Your task to perform on an android device: toggle notifications settings in the gmail app Image 0: 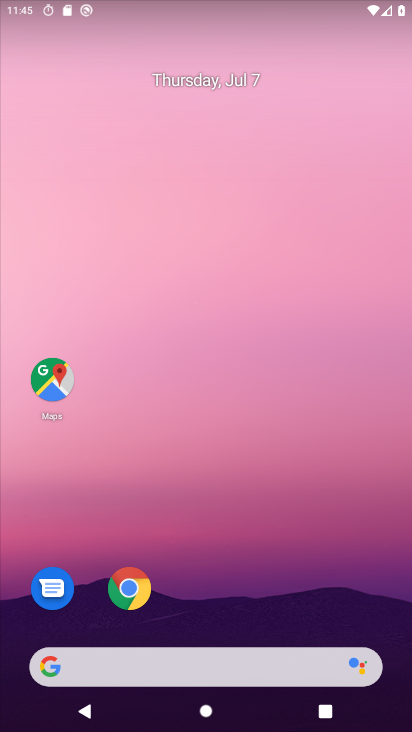
Step 0: drag from (195, 665) to (291, 197)
Your task to perform on an android device: toggle notifications settings in the gmail app Image 1: 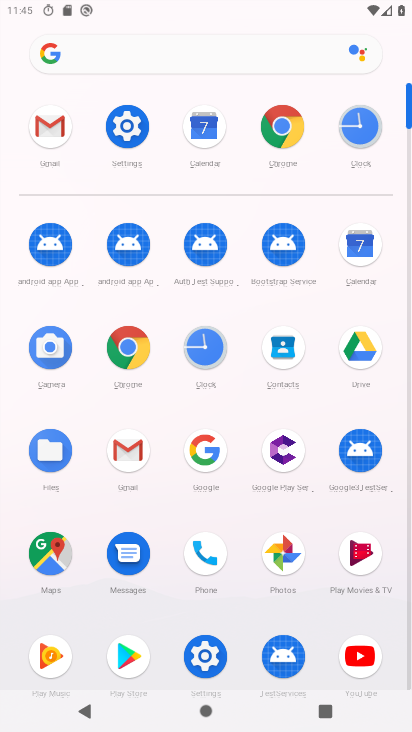
Step 1: click (55, 119)
Your task to perform on an android device: toggle notifications settings in the gmail app Image 2: 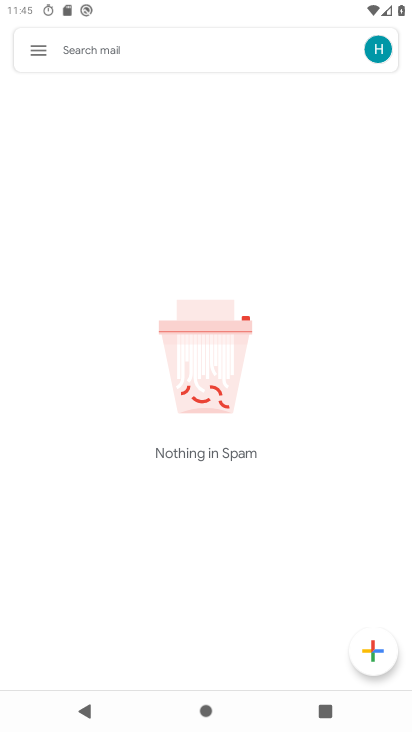
Step 2: click (31, 45)
Your task to perform on an android device: toggle notifications settings in the gmail app Image 3: 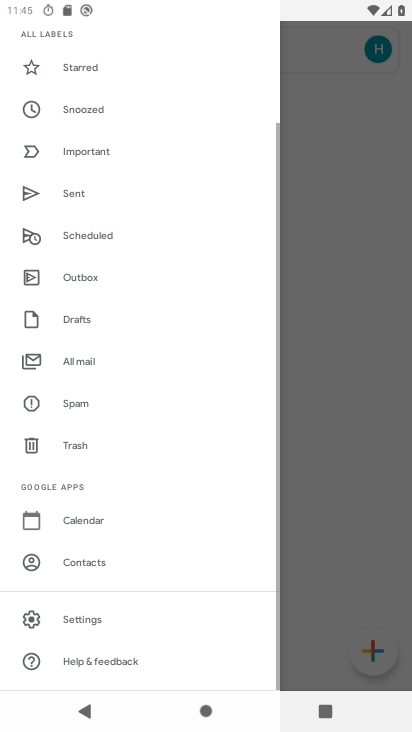
Step 3: click (96, 617)
Your task to perform on an android device: toggle notifications settings in the gmail app Image 4: 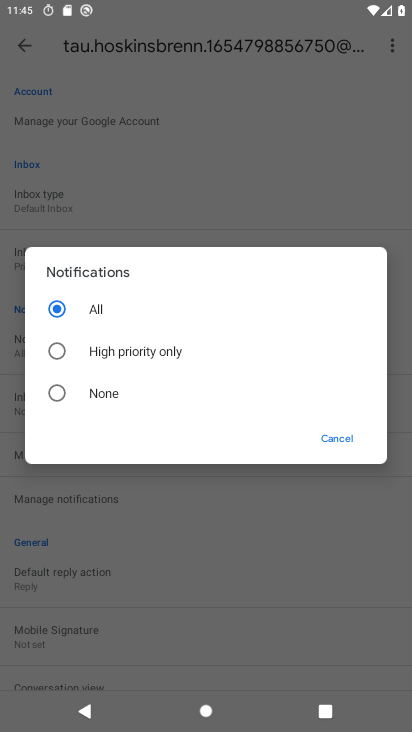
Step 4: click (56, 390)
Your task to perform on an android device: toggle notifications settings in the gmail app Image 5: 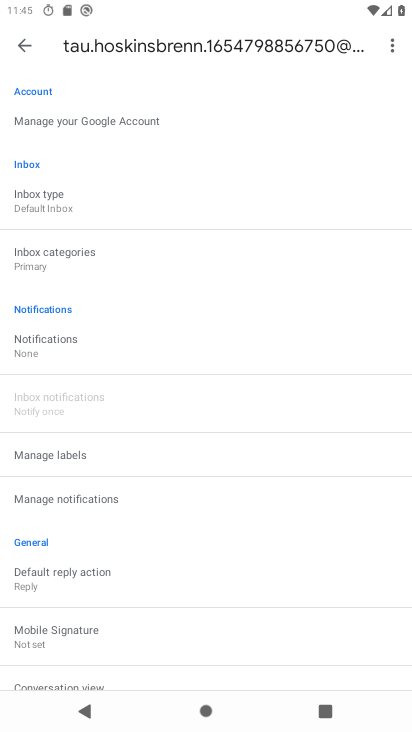
Step 5: task complete